Your task to perform on an android device: see tabs open on other devices in the chrome app Image 0: 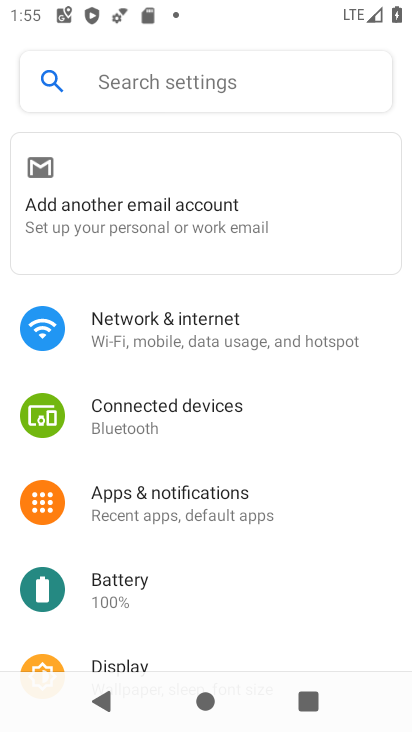
Step 0: press home button
Your task to perform on an android device: see tabs open on other devices in the chrome app Image 1: 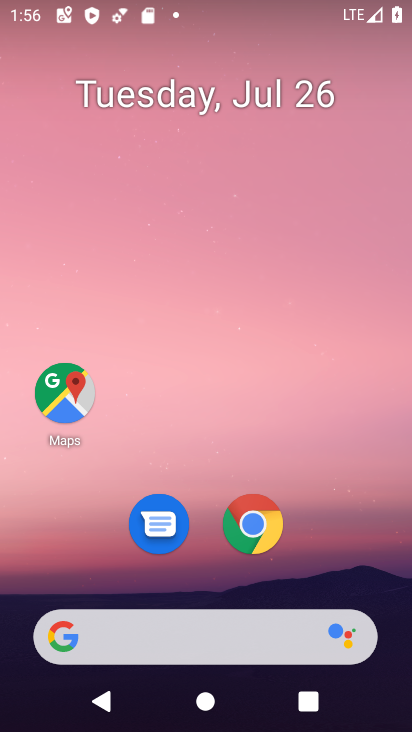
Step 1: click (257, 522)
Your task to perform on an android device: see tabs open on other devices in the chrome app Image 2: 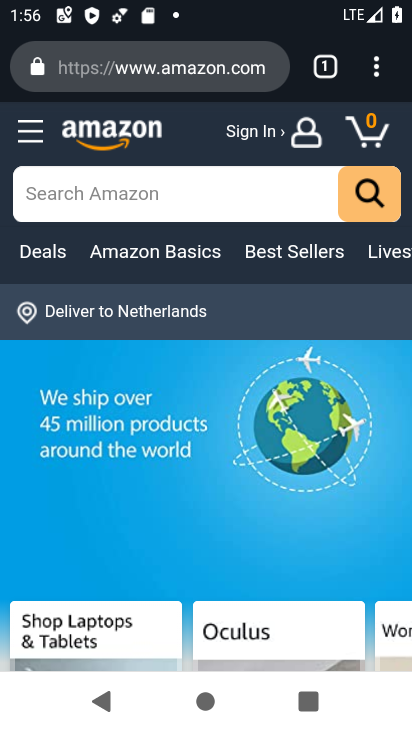
Step 2: click (376, 74)
Your task to perform on an android device: see tabs open on other devices in the chrome app Image 3: 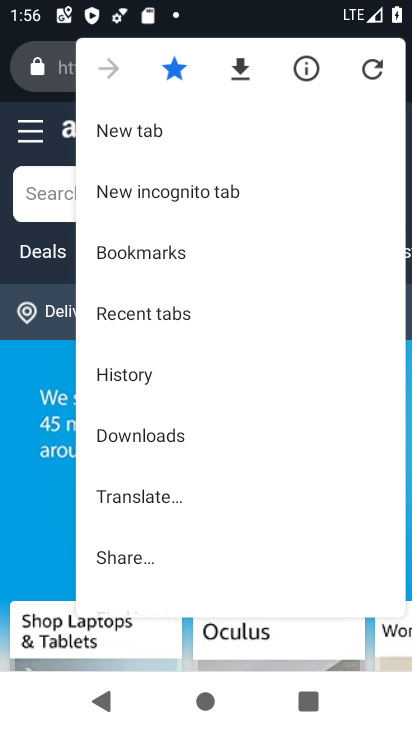
Step 3: click (180, 305)
Your task to perform on an android device: see tabs open on other devices in the chrome app Image 4: 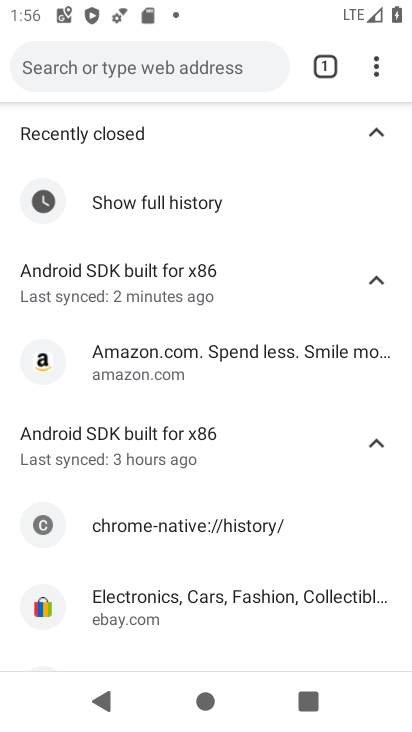
Step 4: task complete